Your task to perform on an android device: add a label to a message in the gmail app Image 0: 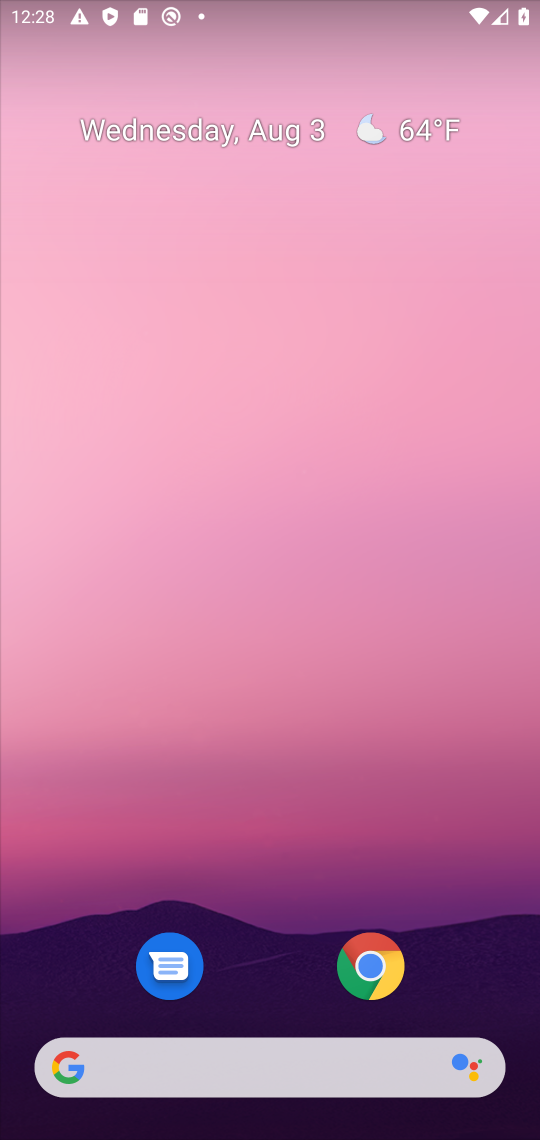
Step 0: drag from (292, 973) to (300, 255)
Your task to perform on an android device: add a label to a message in the gmail app Image 1: 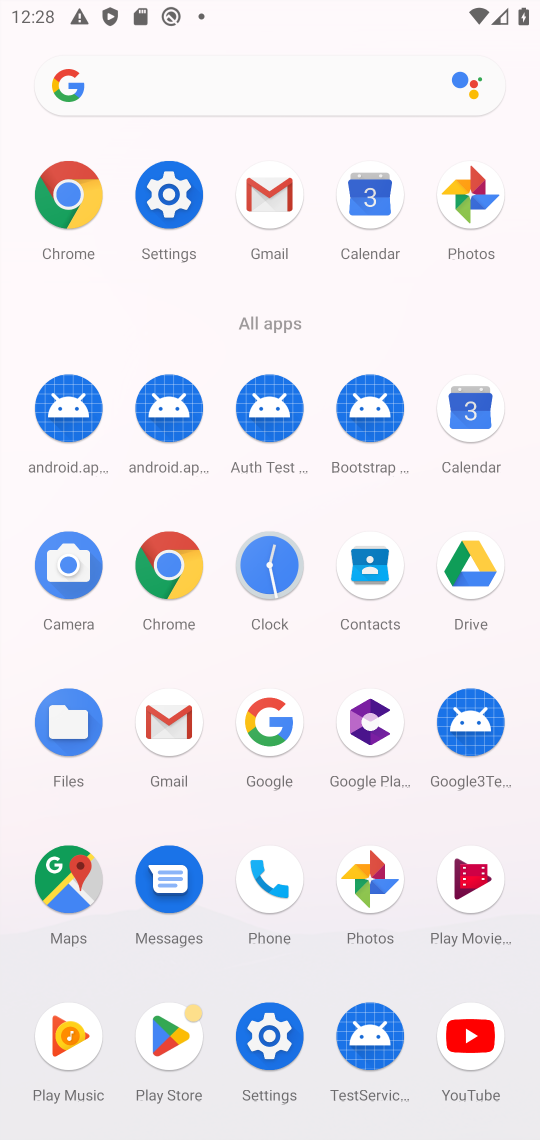
Step 1: click (153, 708)
Your task to perform on an android device: add a label to a message in the gmail app Image 2: 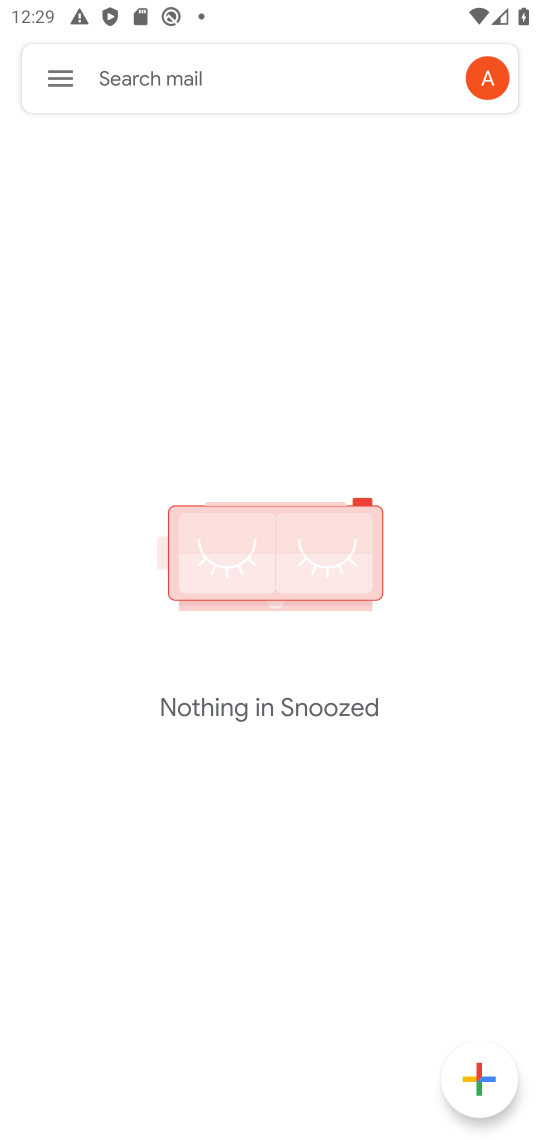
Step 2: task complete